Your task to perform on an android device: open sync settings in chrome Image 0: 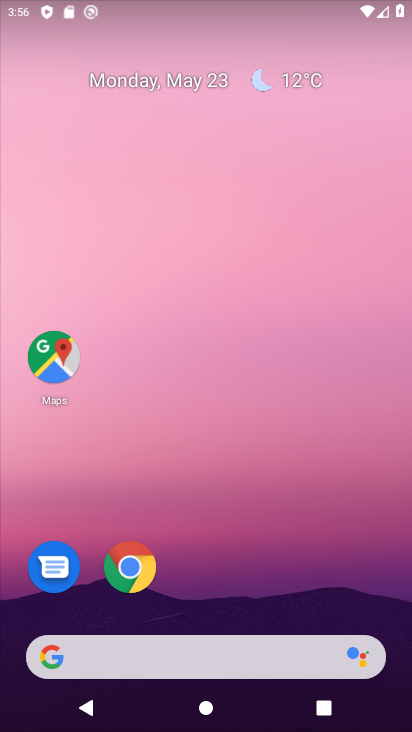
Step 0: click (142, 570)
Your task to perform on an android device: open sync settings in chrome Image 1: 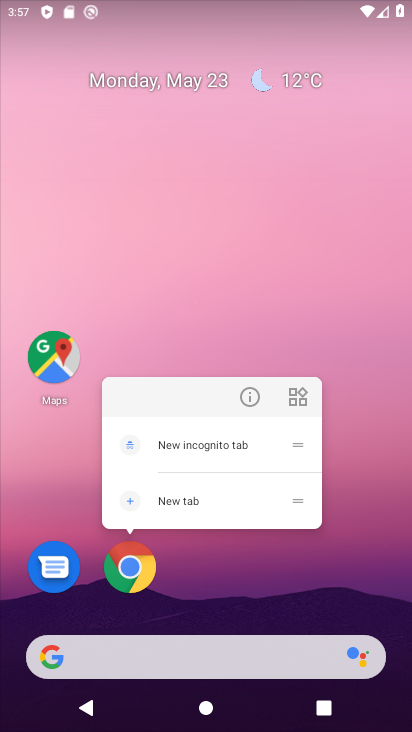
Step 1: click (136, 562)
Your task to perform on an android device: open sync settings in chrome Image 2: 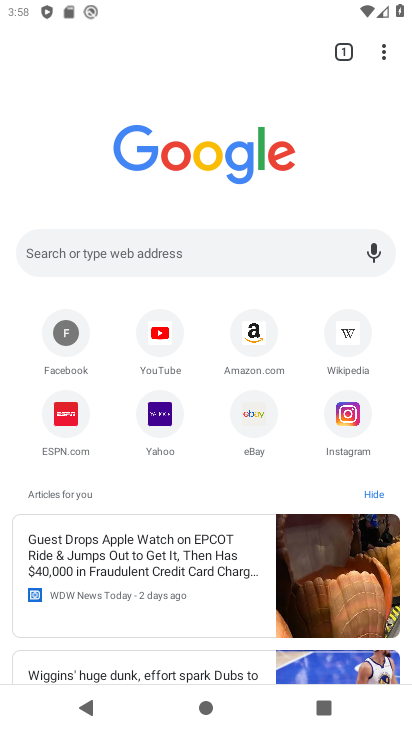
Step 2: click (383, 53)
Your task to perform on an android device: open sync settings in chrome Image 3: 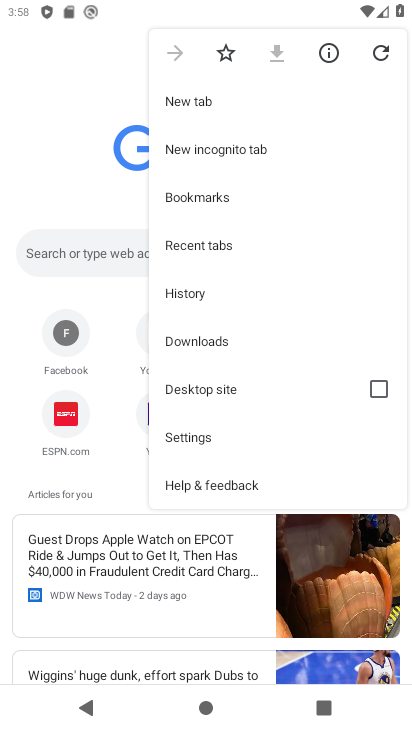
Step 3: click (195, 443)
Your task to perform on an android device: open sync settings in chrome Image 4: 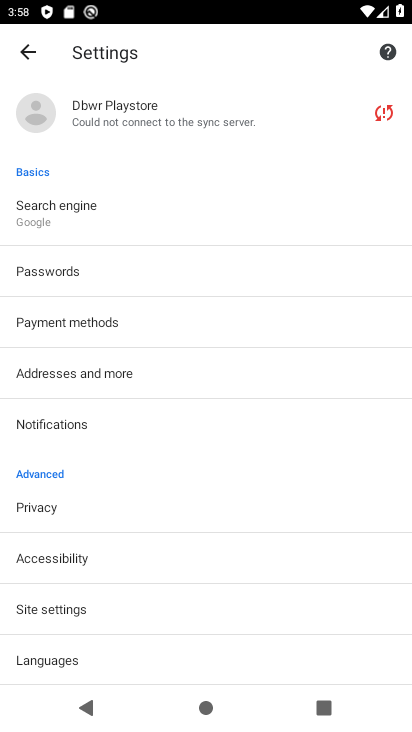
Step 4: click (110, 113)
Your task to perform on an android device: open sync settings in chrome Image 5: 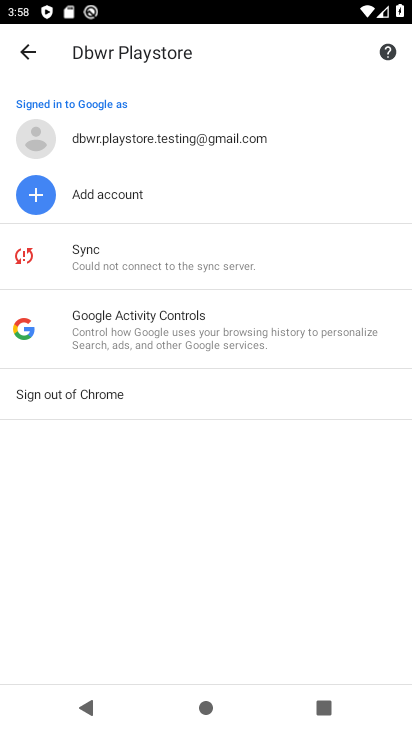
Step 5: click (186, 267)
Your task to perform on an android device: open sync settings in chrome Image 6: 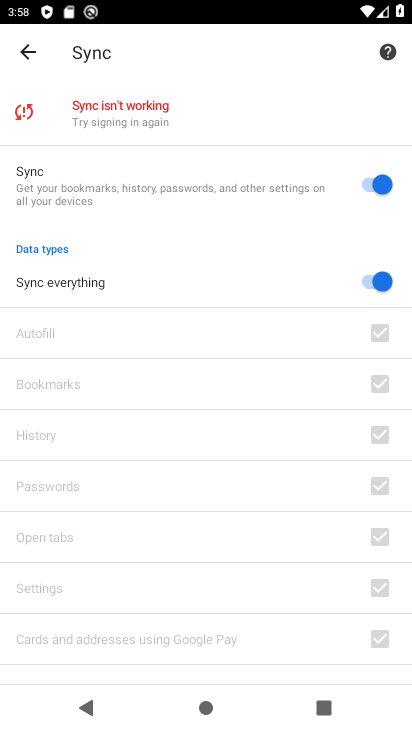
Step 6: task complete